Your task to perform on an android device: Open Youtube and go to "Your channel" Image 0: 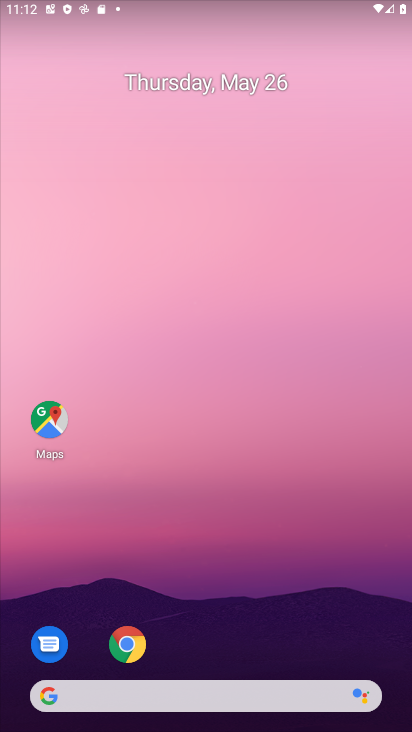
Step 0: drag from (333, 629) to (250, 36)
Your task to perform on an android device: Open Youtube and go to "Your channel" Image 1: 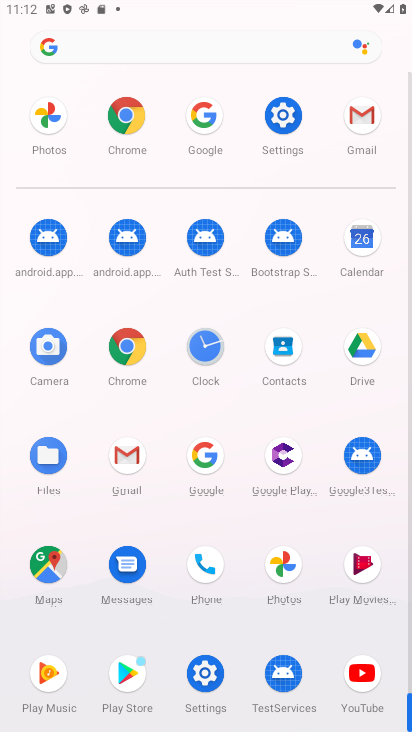
Step 1: click (354, 668)
Your task to perform on an android device: Open Youtube and go to "Your channel" Image 2: 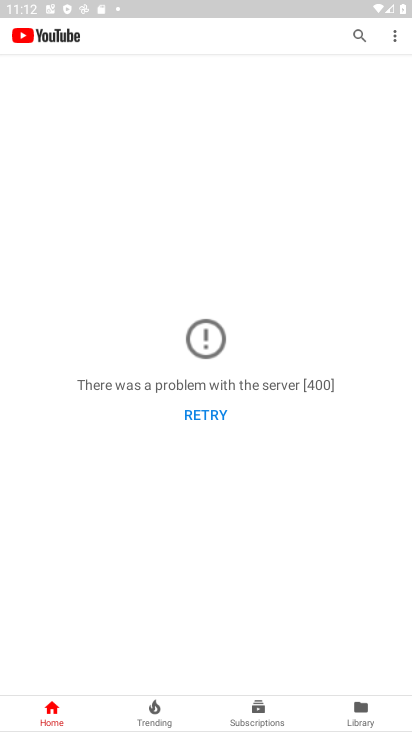
Step 2: click (204, 392)
Your task to perform on an android device: Open Youtube and go to "Your channel" Image 3: 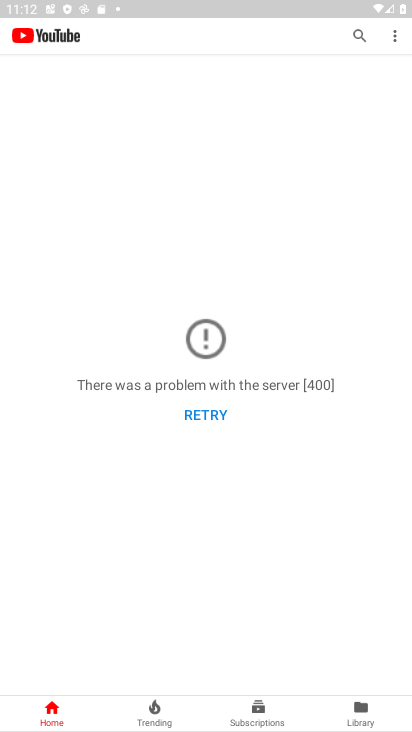
Step 3: click (213, 420)
Your task to perform on an android device: Open Youtube and go to "Your channel" Image 4: 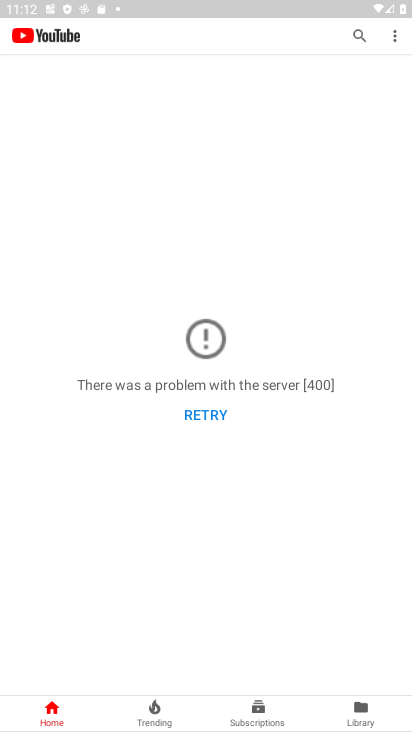
Step 4: click (213, 420)
Your task to perform on an android device: Open Youtube and go to "Your channel" Image 5: 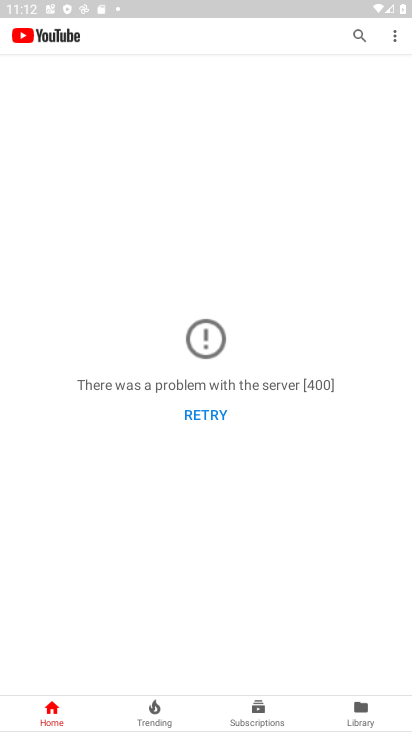
Step 5: click (195, 409)
Your task to perform on an android device: Open Youtube and go to "Your channel" Image 6: 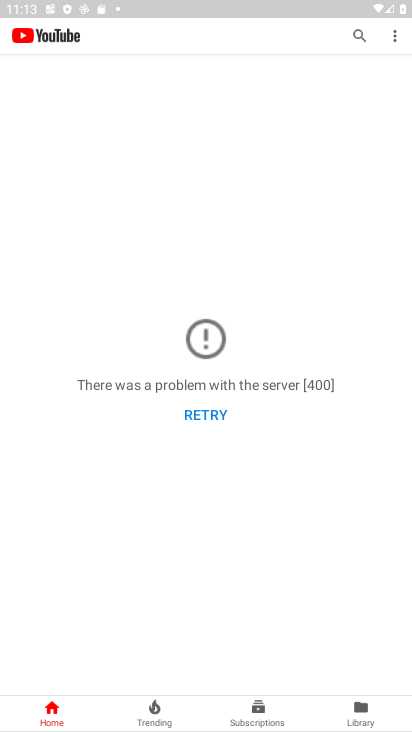
Step 6: task complete